Your task to perform on an android device: make emails show in primary in the gmail app Image 0: 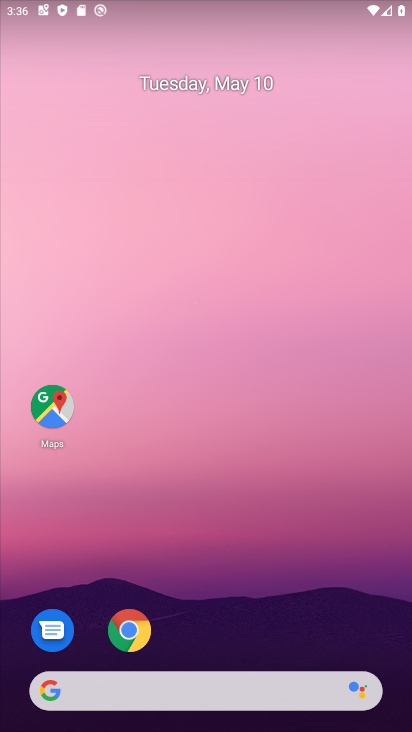
Step 0: drag from (226, 618) to (187, 303)
Your task to perform on an android device: make emails show in primary in the gmail app Image 1: 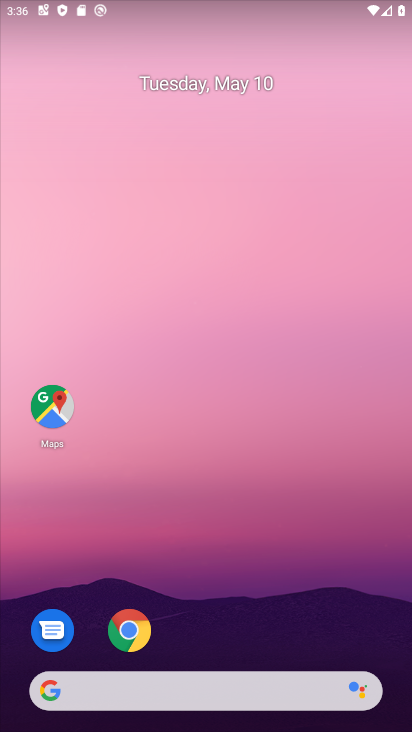
Step 1: drag from (203, 640) to (182, 108)
Your task to perform on an android device: make emails show in primary in the gmail app Image 2: 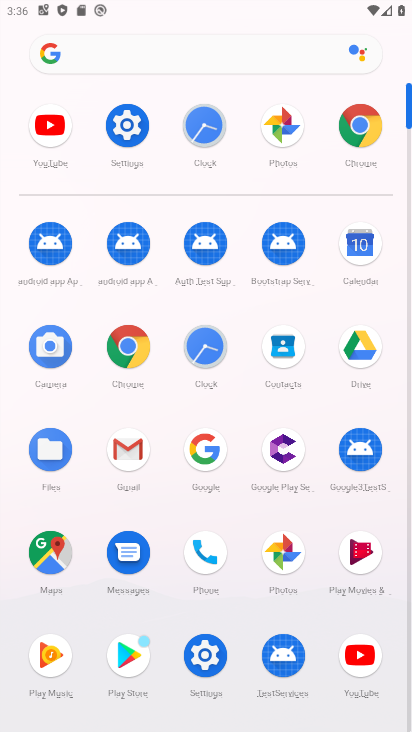
Step 2: click (139, 452)
Your task to perform on an android device: make emails show in primary in the gmail app Image 3: 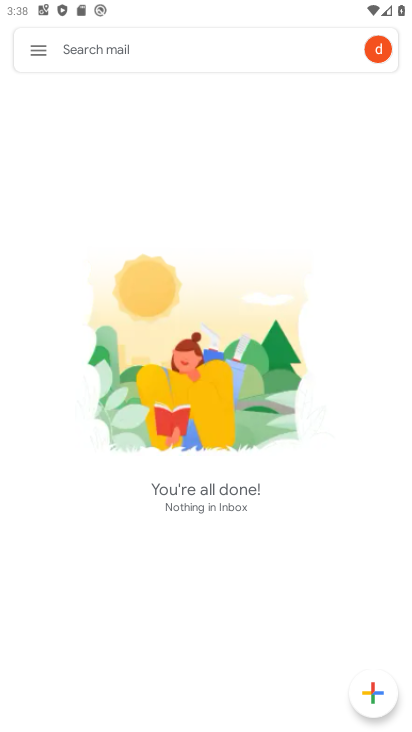
Step 3: task complete